Your task to perform on an android device: toggle wifi Image 0: 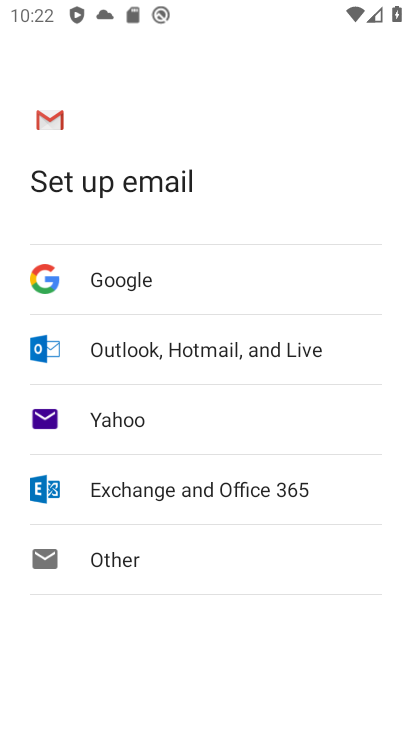
Step 0: press home button
Your task to perform on an android device: toggle wifi Image 1: 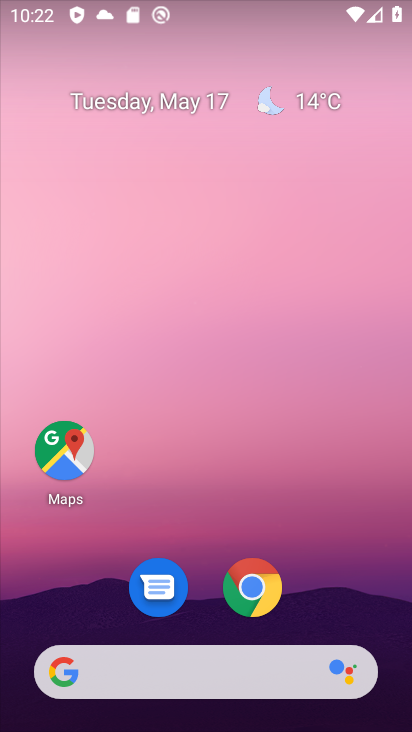
Step 1: drag from (288, 280) to (230, 1)
Your task to perform on an android device: toggle wifi Image 2: 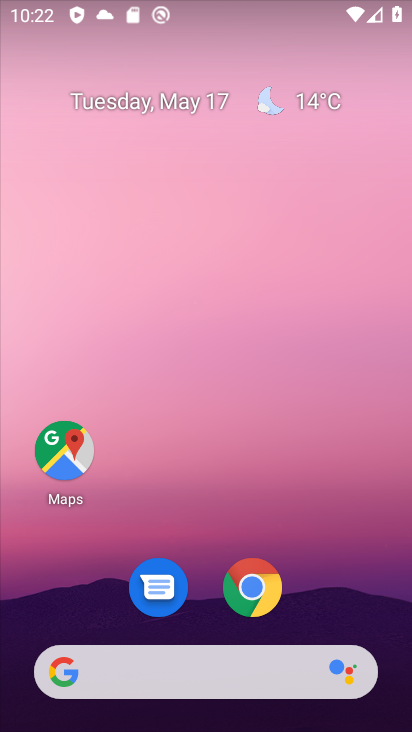
Step 2: drag from (314, 492) to (260, 17)
Your task to perform on an android device: toggle wifi Image 3: 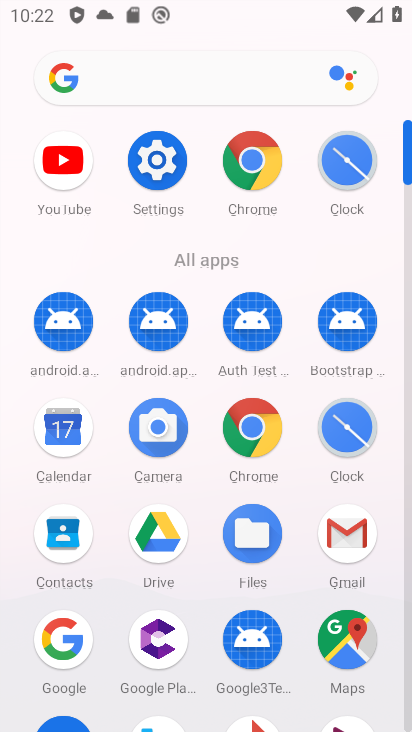
Step 3: click (159, 167)
Your task to perform on an android device: toggle wifi Image 4: 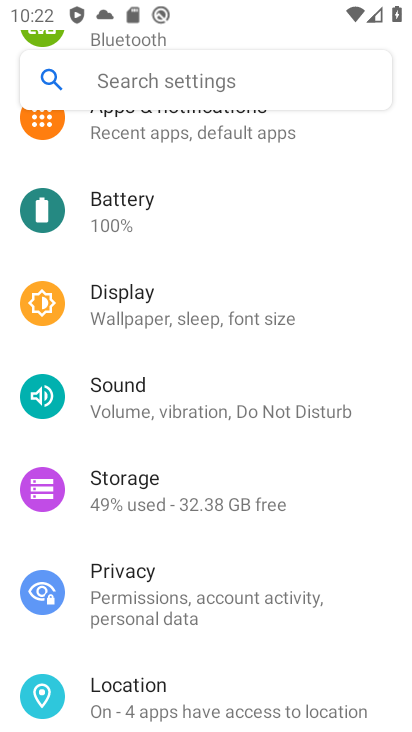
Step 4: drag from (263, 199) to (265, 533)
Your task to perform on an android device: toggle wifi Image 5: 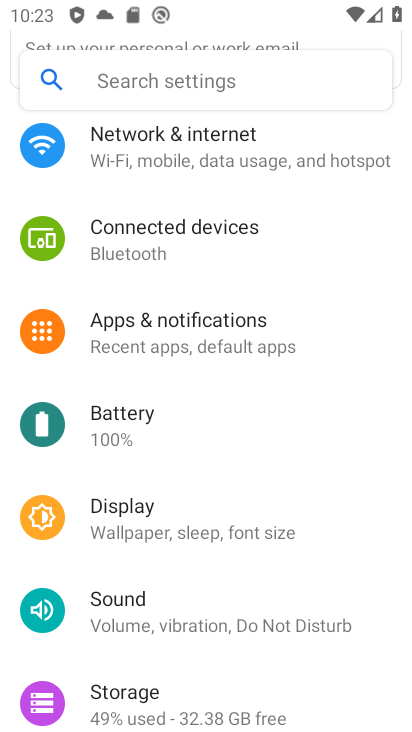
Step 5: click (253, 153)
Your task to perform on an android device: toggle wifi Image 6: 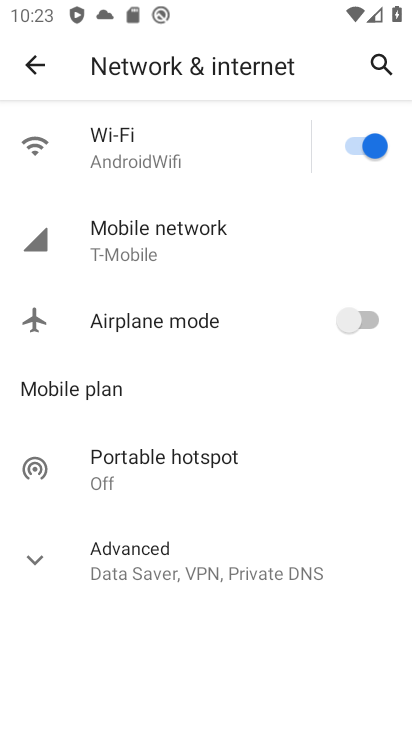
Step 6: click (357, 145)
Your task to perform on an android device: toggle wifi Image 7: 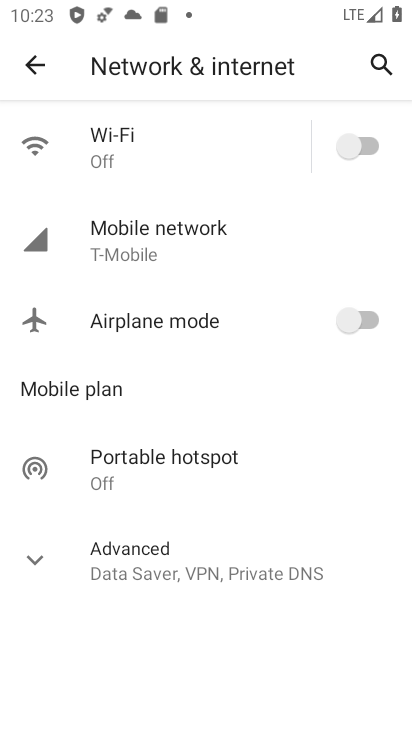
Step 7: task complete